Your task to perform on an android device: Open the clock app Image 0: 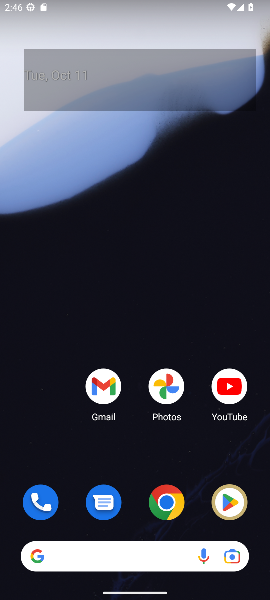
Step 0: drag from (140, 461) to (117, 189)
Your task to perform on an android device: Open the clock app Image 1: 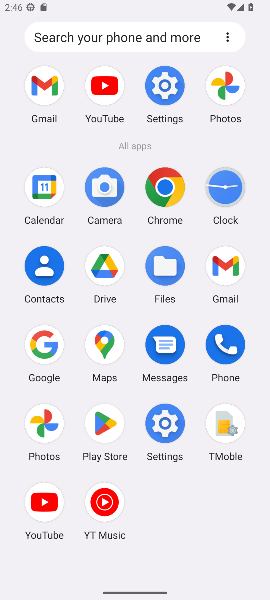
Step 1: click (221, 187)
Your task to perform on an android device: Open the clock app Image 2: 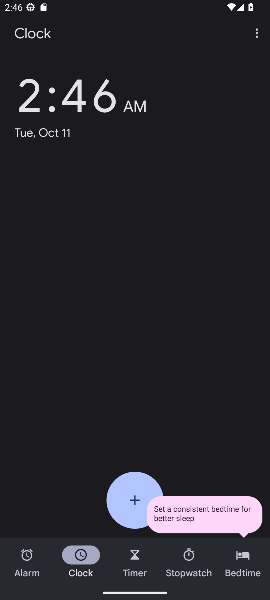
Step 2: task complete